Your task to perform on an android device: toggle show notifications on the lock screen Image 0: 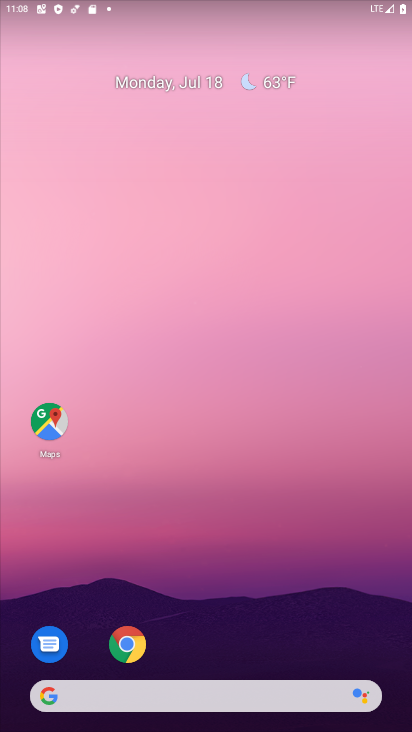
Step 0: drag from (337, 649) to (293, 72)
Your task to perform on an android device: toggle show notifications on the lock screen Image 1: 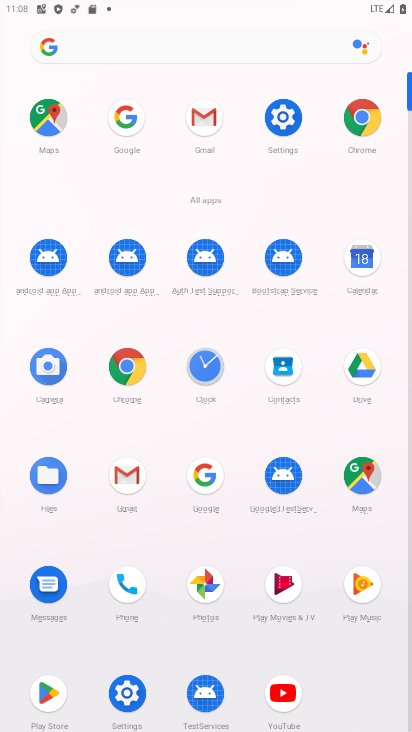
Step 1: click (286, 117)
Your task to perform on an android device: toggle show notifications on the lock screen Image 2: 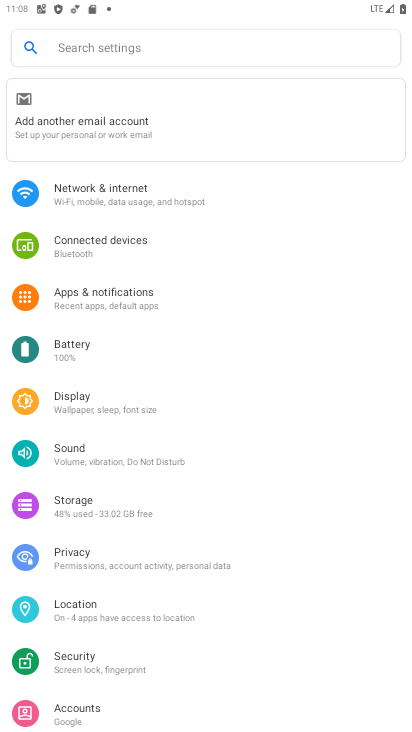
Step 2: click (86, 308)
Your task to perform on an android device: toggle show notifications on the lock screen Image 3: 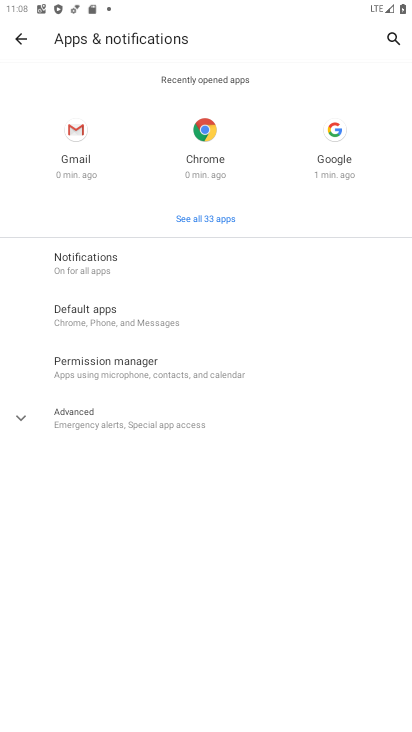
Step 3: click (130, 253)
Your task to perform on an android device: toggle show notifications on the lock screen Image 4: 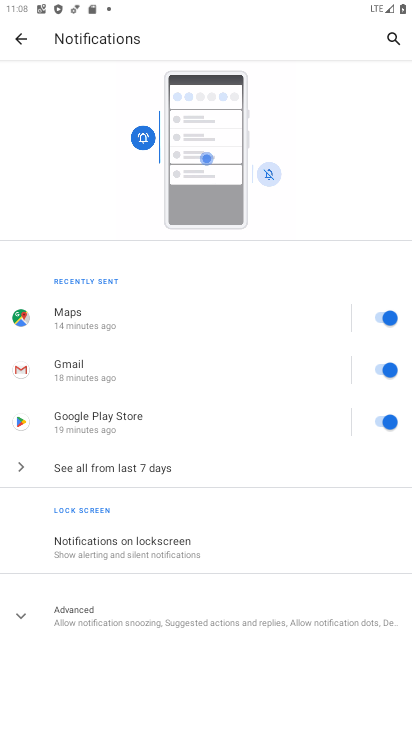
Step 4: click (144, 555)
Your task to perform on an android device: toggle show notifications on the lock screen Image 5: 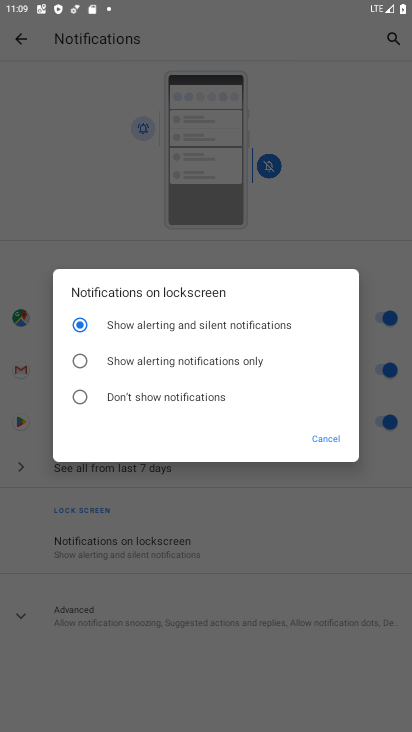
Step 5: click (262, 363)
Your task to perform on an android device: toggle show notifications on the lock screen Image 6: 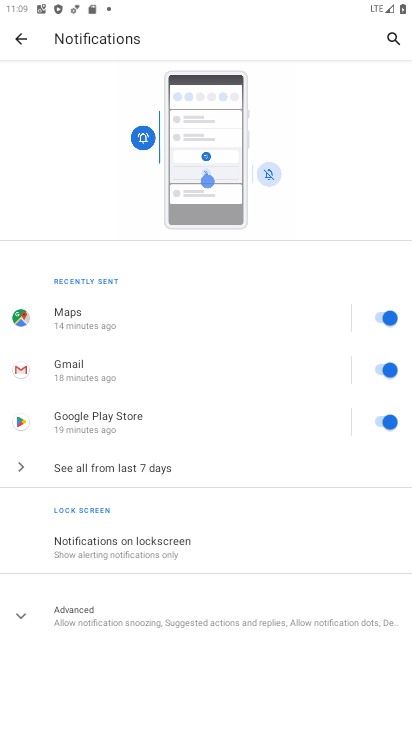
Step 6: task complete